Your task to perform on an android device: change text size in settings app Image 0: 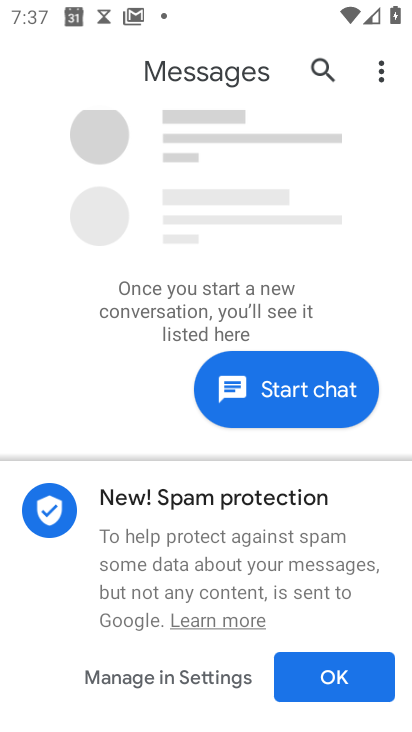
Step 0: press home button
Your task to perform on an android device: change text size in settings app Image 1: 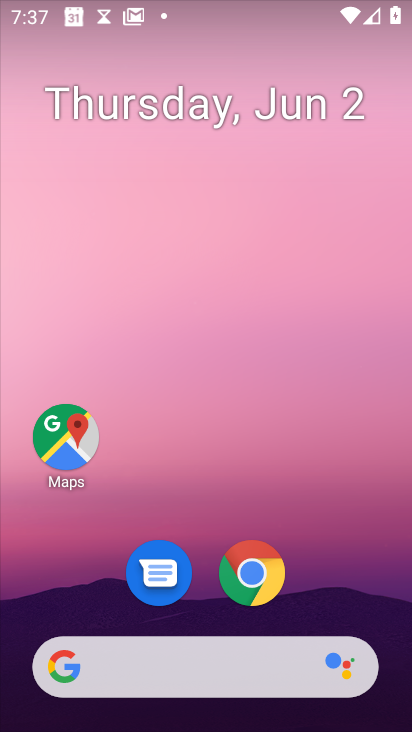
Step 1: drag from (157, 673) to (322, 60)
Your task to perform on an android device: change text size in settings app Image 2: 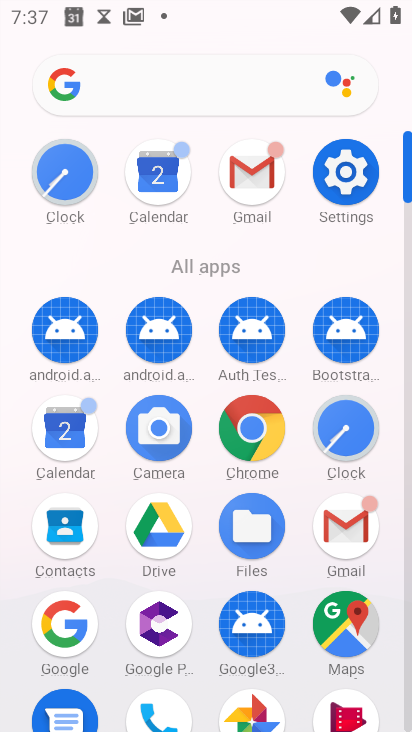
Step 2: click (345, 171)
Your task to perform on an android device: change text size in settings app Image 3: 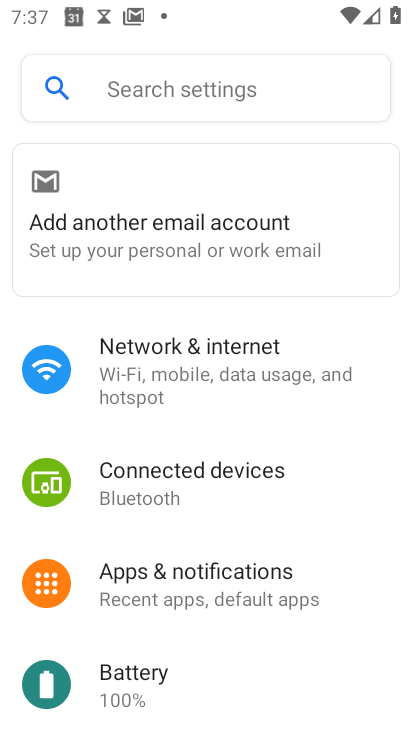
Step 3: drag from (257, 674) to (324, 258)
Your task to perform on an android device: change text size in settings app Image 4: 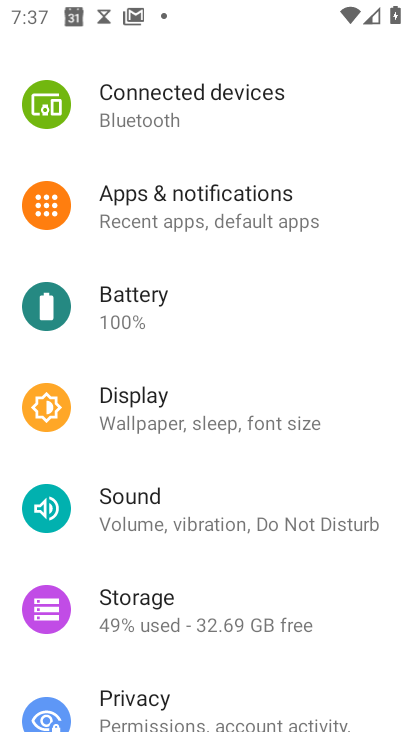
Step 4: click (188, 406)
Your task to perform on an android device: change text size in settings app Image 5: 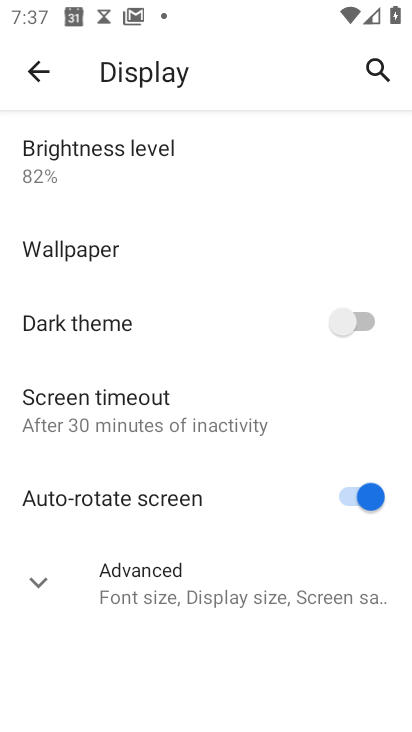
Step 5: click (155, 591)
Your task to perform on an android device: change text size in settings app Image 6: 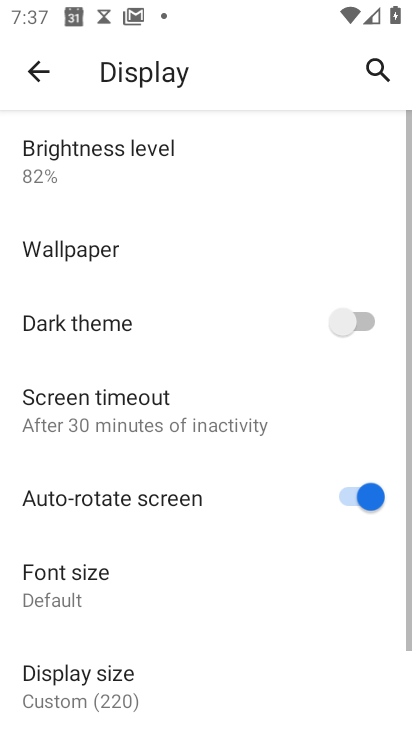
Step 6: click (66, 576)
Your task to perform on an android device: change text size in settings app Image 7: 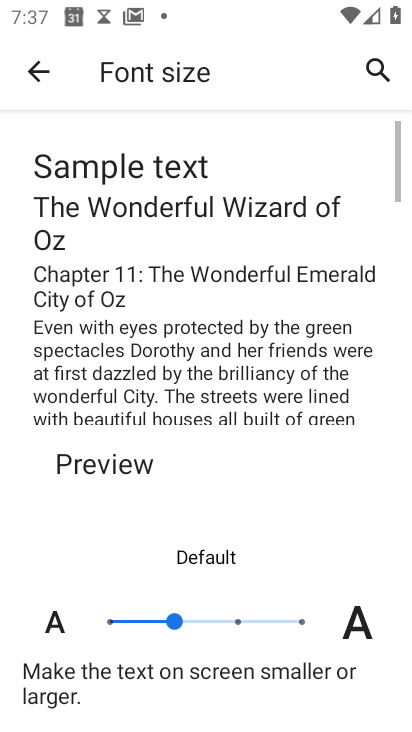
Step 7: drag from (194, 576) to (319, 192)
Your task to perform on an android device: change text size in settings app Image 8: 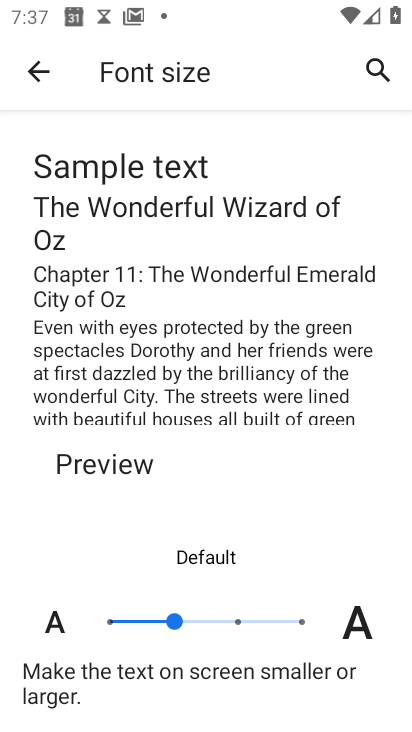
Step 8: click (110, 620)
Your task to perform on an android device: change text size in settings app Image 9: 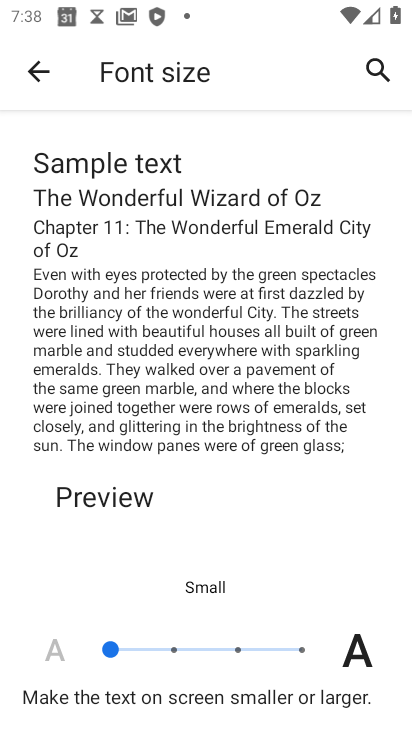
Step 9: task complete